Your task to perform on an android device: Check the news Image 0: 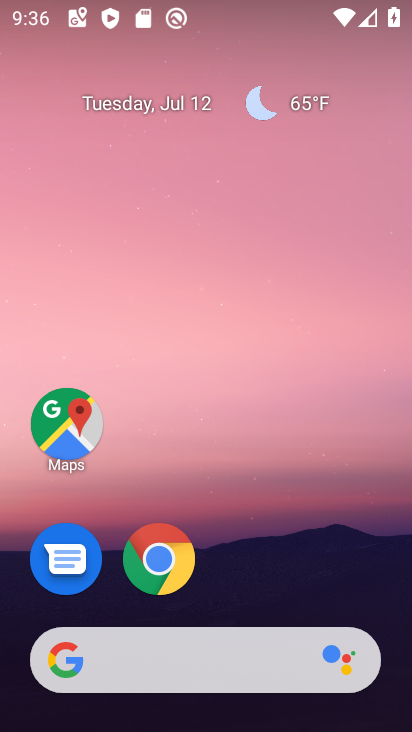
Step 0: drag from (4, 253) to (411, 466)
Your task to perform on an android device: Check the news Image 1: 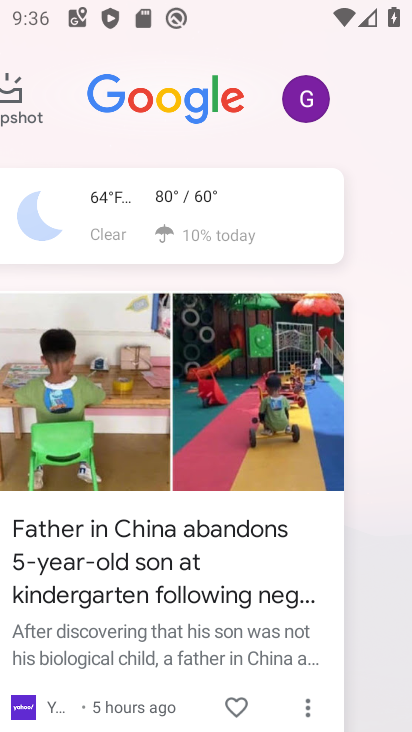
Step 1: task complete